Your task to perform on an android device: Go to Google maps Image 0: 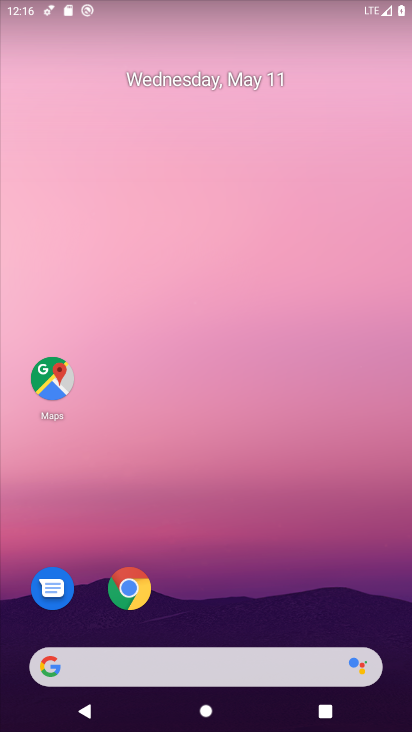
Step 0: click (50, 379)
Your task to perform on an android device: Go to Google maps Image 1: 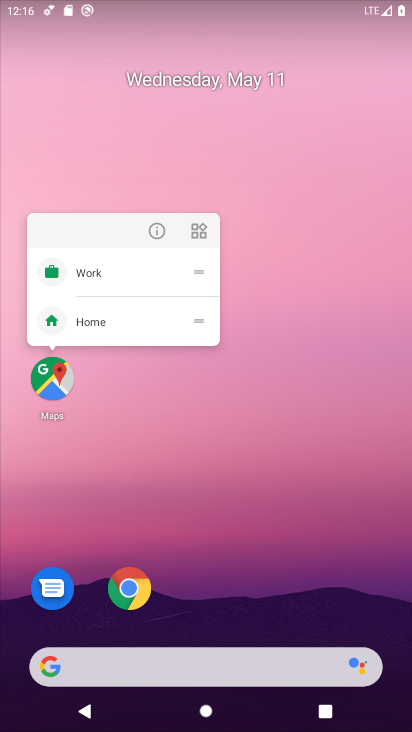
Step 1: click (53, 382)
Your task to perform on an android device: Go to Google maps Image 2: 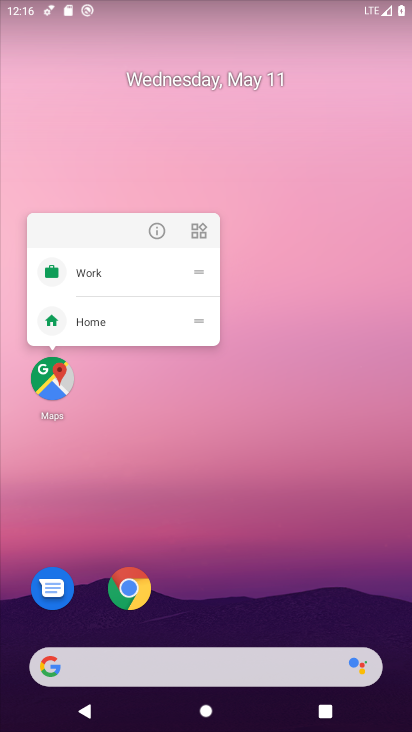
Step 2: click (55, 382)
Your task to perform on an android device: Go to Google maps Image 3: 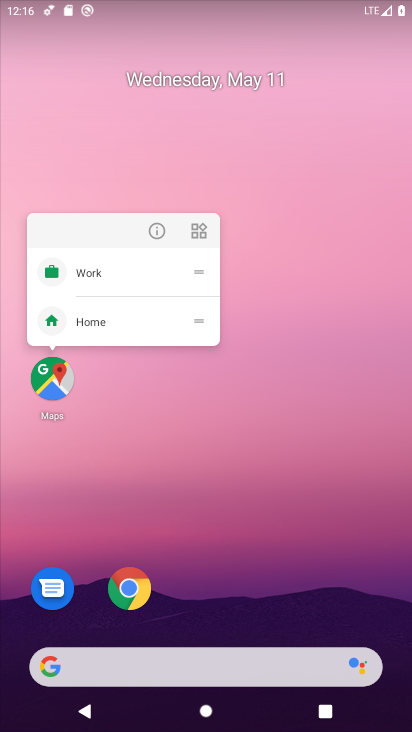
Step 3: click (49, 385)
Your task to perform on an android device: Go to Google maps Image 4: 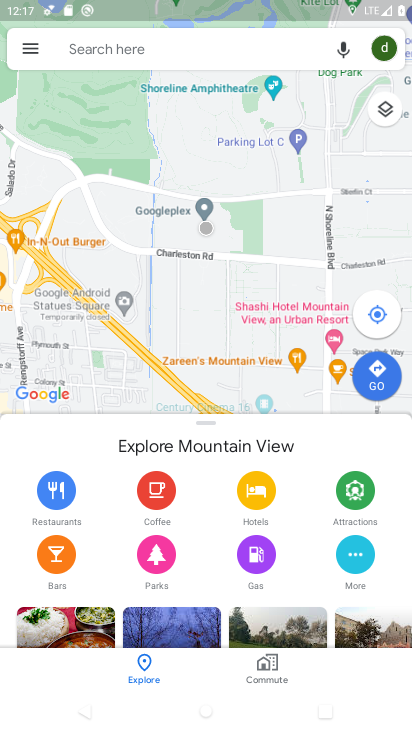
Step 4: task complete